Your task to perform on an android device: What's US dollar exchange rateagainst the Mexican Peso? Image 0: 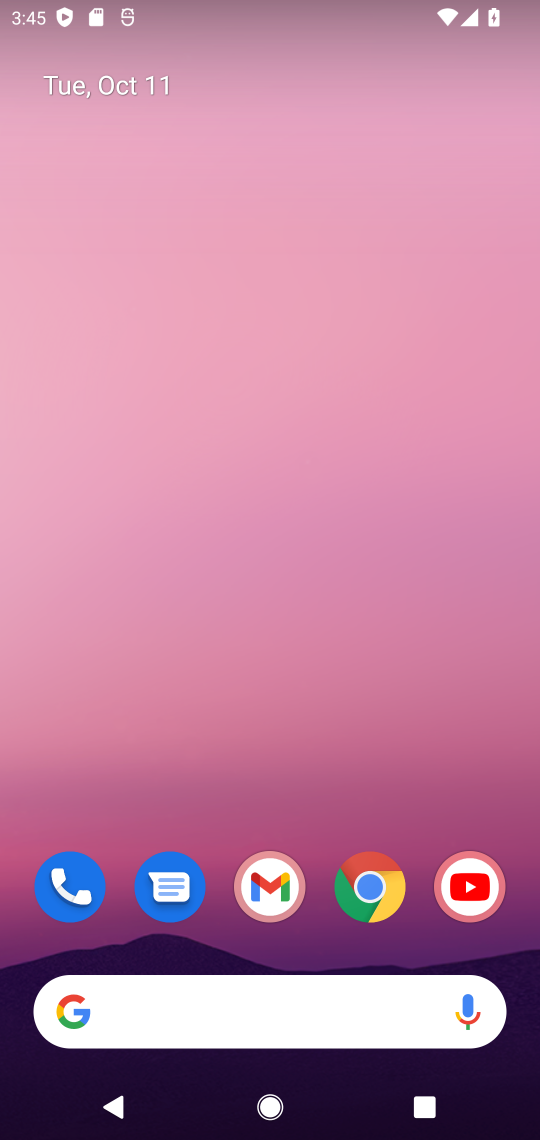
Step 0: click (352, 894)
Your task to perform on an android device: What's US dollar exchange rateagainst the Mexican Peso? Image 1: 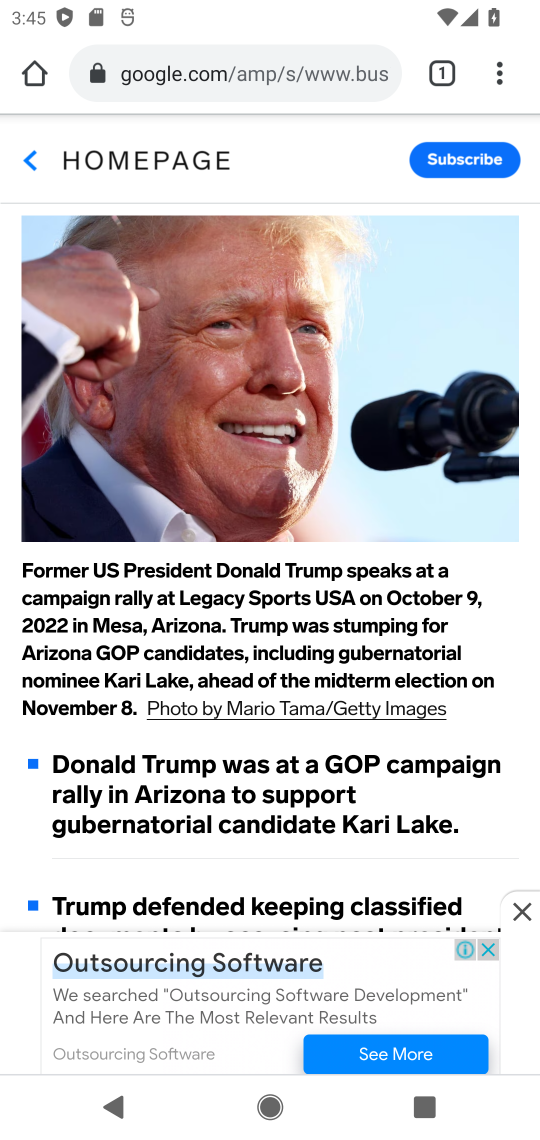
Step 1: click (170, 75)
Your task to perform on an android device: What's US dollar exchange rateagainst the Mexican Peso? Image 2: 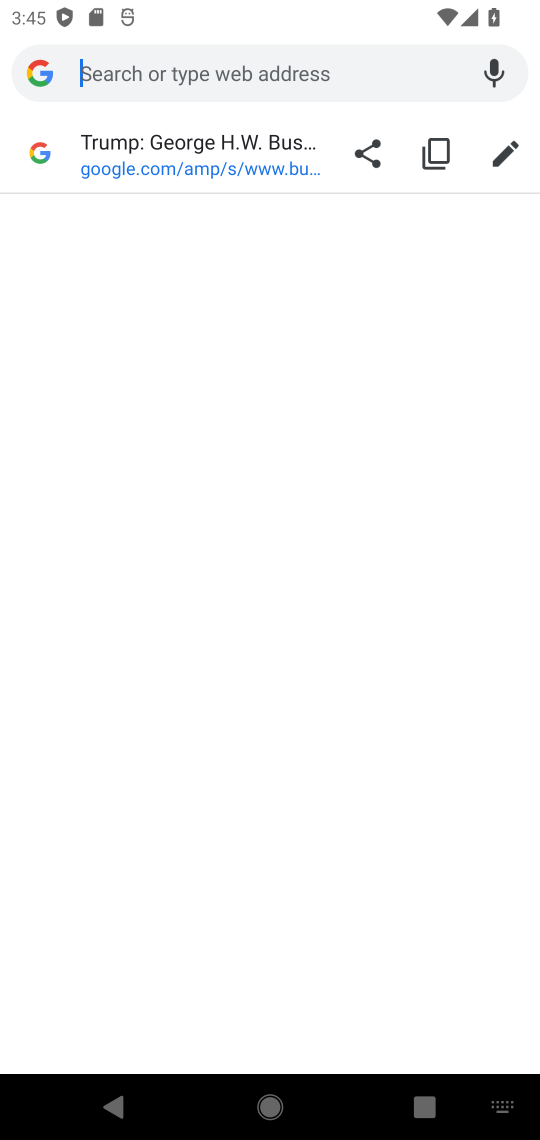
Step 2: type " US dollar exchange rateagainst the Mexican Peso"
Your task to perform on an android device: What's US dollar exchange rateagainst the Mexican Peso? Image 3: 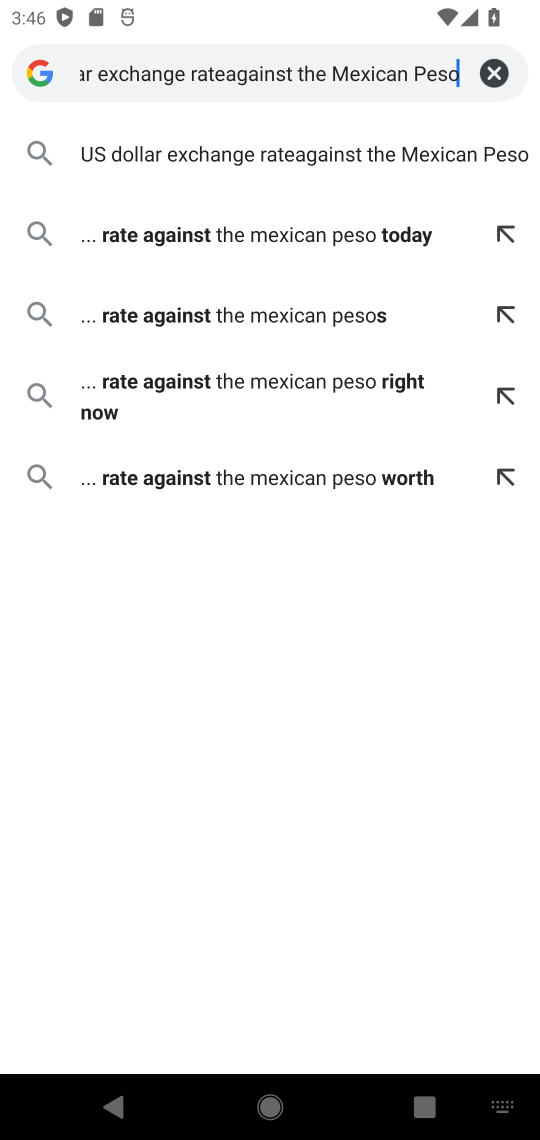
Step 3: click (215, 164)
Your task to perform on an android device: What's US dollar exchange rateagainst the Mexican Peso? Image 4: 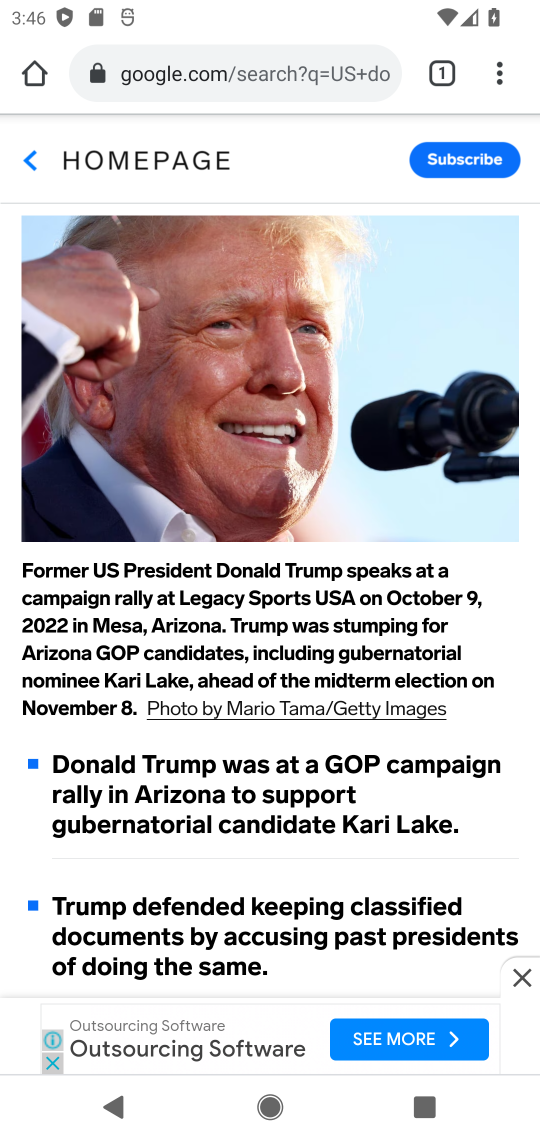
Step 4: click (215, 65)
Your task to perform on an android device: What's US dollar exchange rateagainst the Mexican Peso? Image 5: 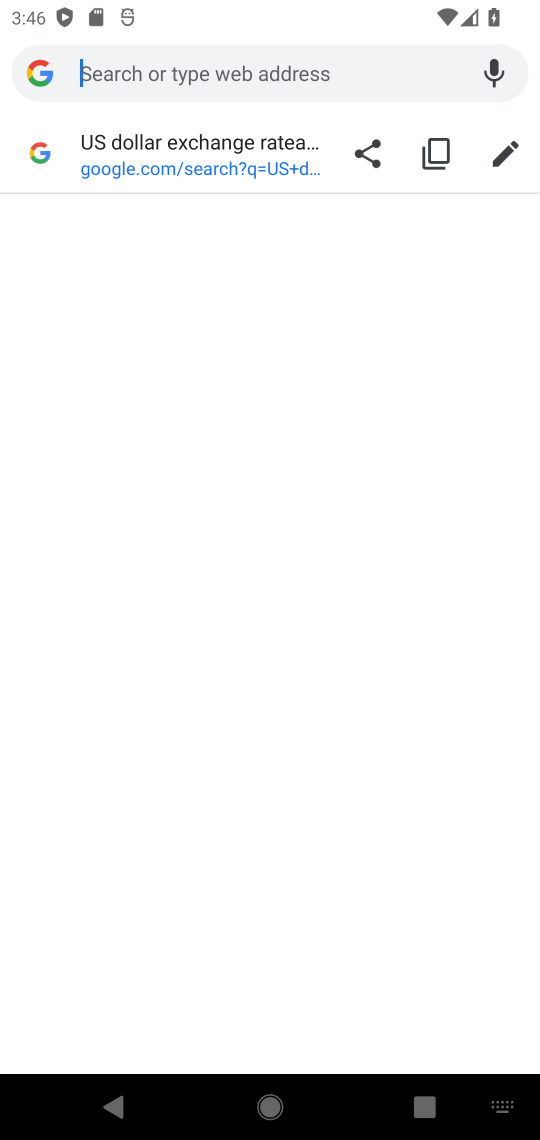
Step 5: click (207, 161)
Your task to perform on an android device: What's US dollar exchange rateagainst the Mexican Peso? Image 6: 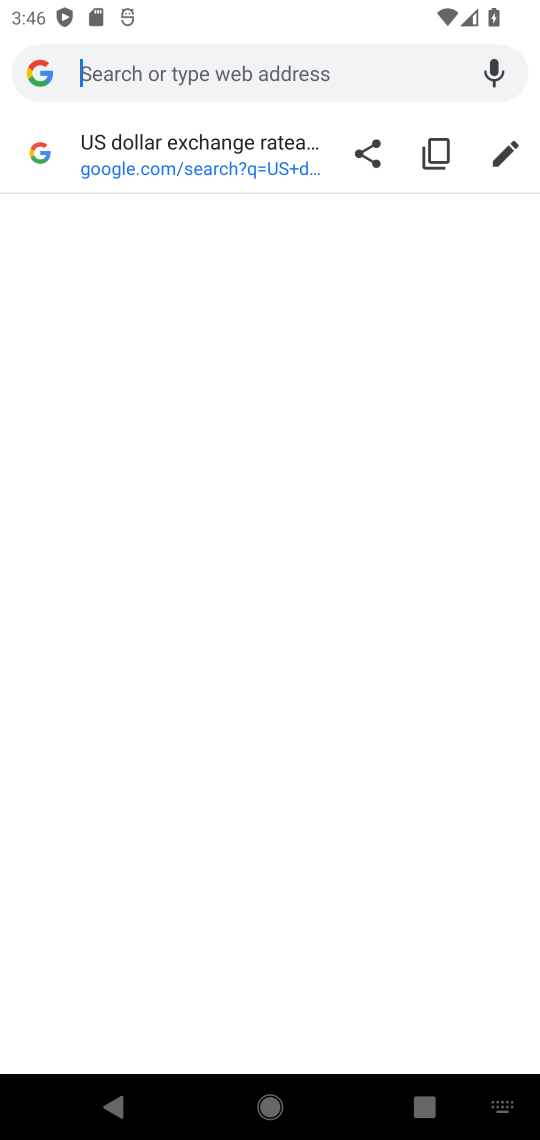
Step 6: click (207, 147)
Your task to perform on an android device: What's US dollar exchange rateagainst the Mexican Peso? Image 7: 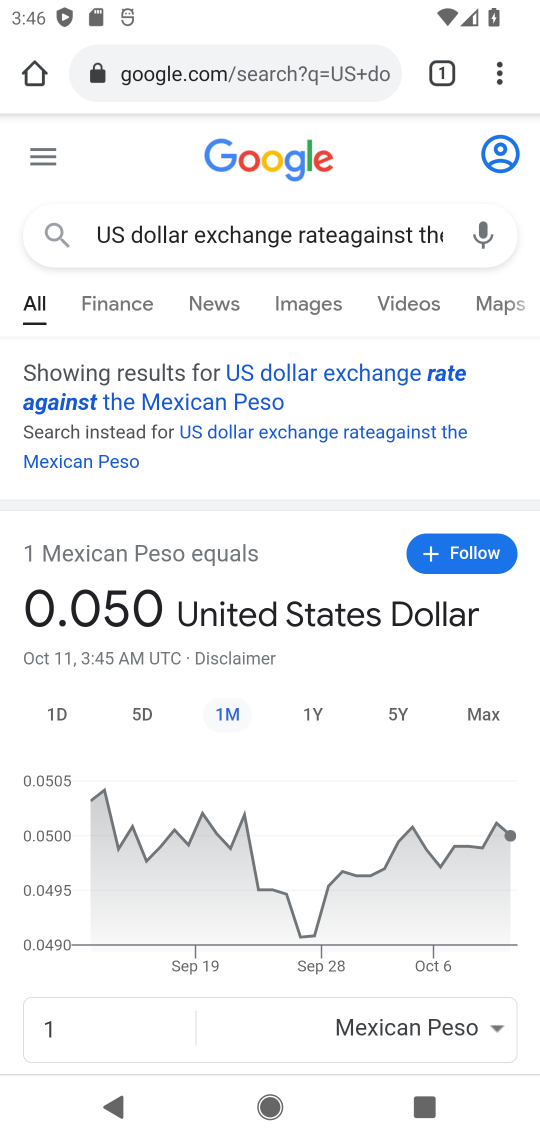
Step 7: task complete